Your task to perform on an android device: Open Google Image 0: 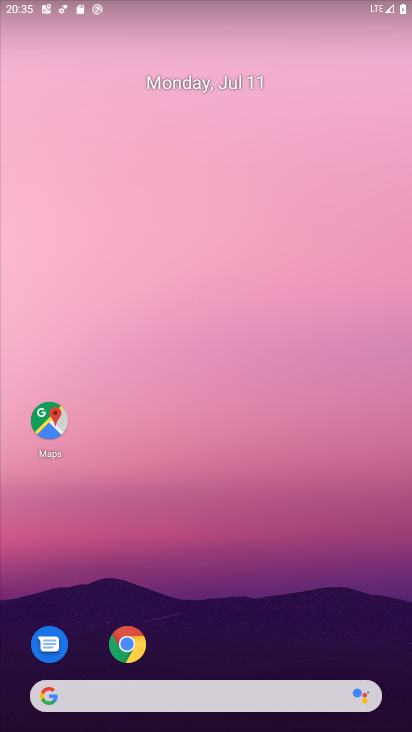
Step 0: drag from (224, 581) to (226, 233)
Your task to perform on an android device: Open Google Image 1: 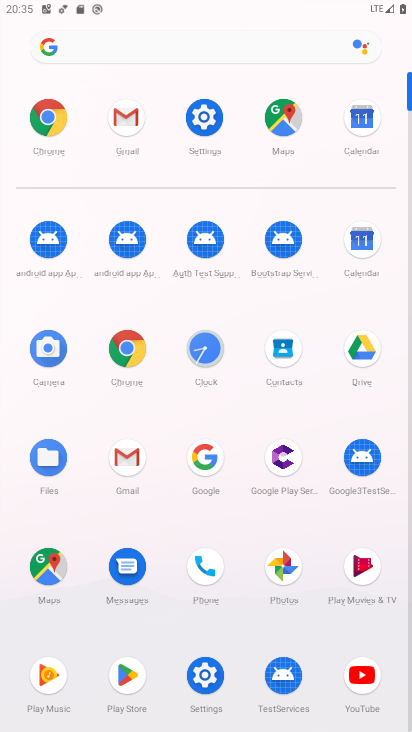
Step 1: click (193, 444)
Your task to perform on an android device: Open Google Image 2: 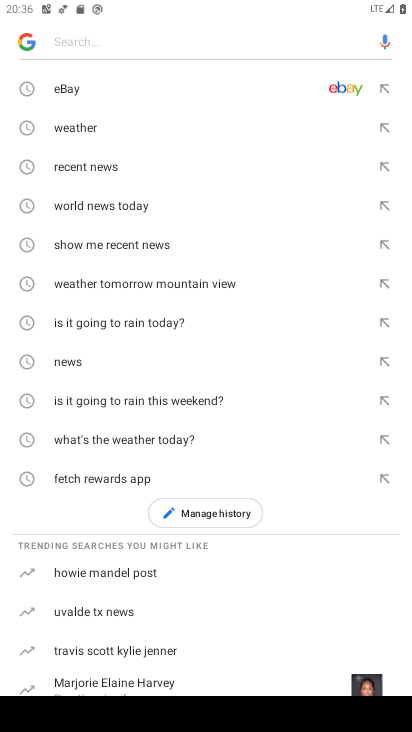
Step 2: task complete